Your task to perform on an android device: Go to display settings Image 0: 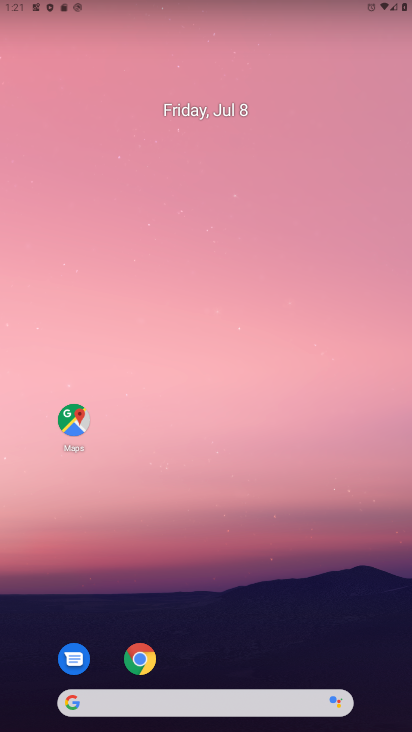
Step 0: drag from (275, 625) to (196, 53)
Your task to perform on an android device: Go to display settings Image 1: 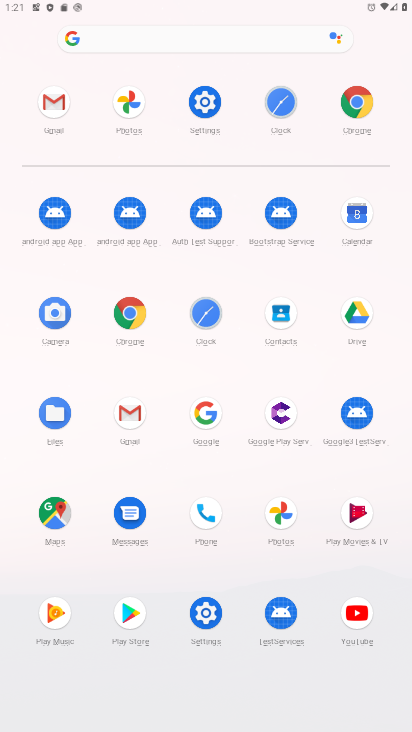
Step 1: click (207, 612)
Your task to perform on an android device: Go to display settings Image 2: 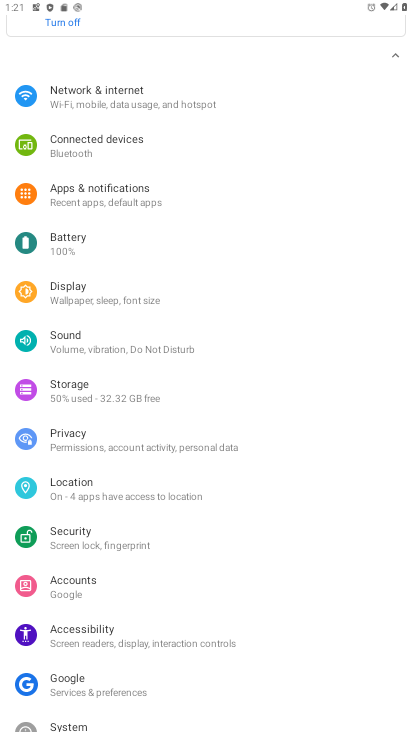
Step 2: click (64, 287)
Your task to perform on an android device: Go to display settings Image 3: 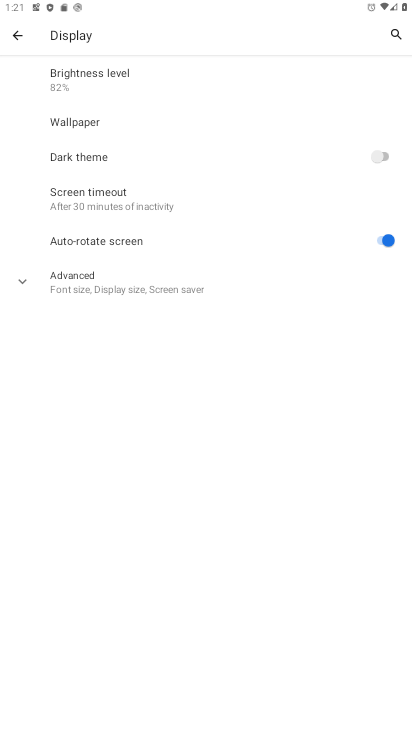
Step 3: task complete